Your task to perform on an android device: Open the Play Movies app and select the watchlist tab. Image 0: 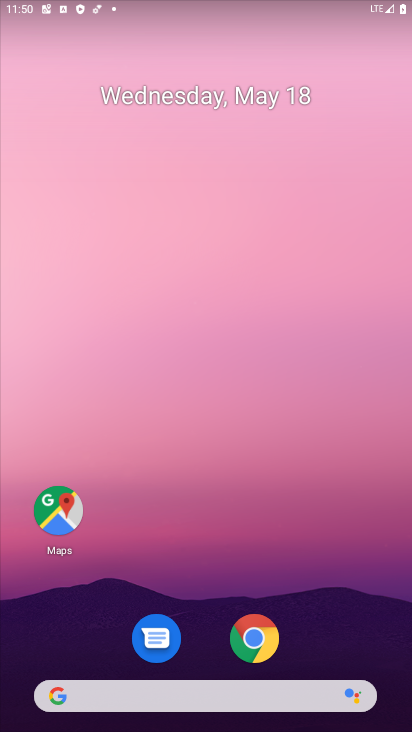
Step 0: drag from (364, 645) to (269, 64)
Your task to perform on an android device: Open the Play Movies app and select the watchlist tab. Image 1: 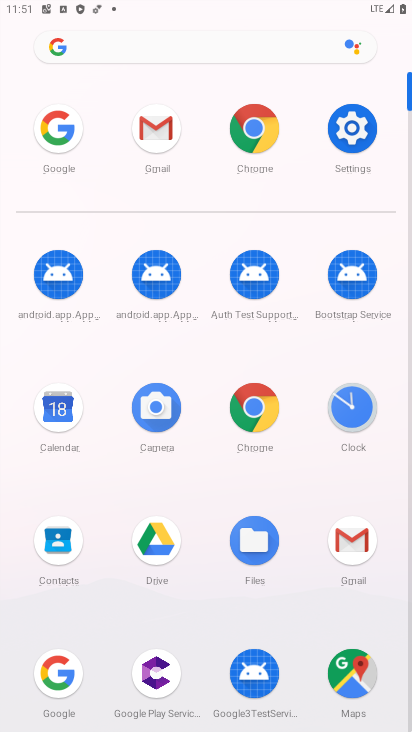
Step 1: drag from (338, 593) to (301, 192)
Your task to perform on an android device: Open the Play Movies app and select the watchlist tab. Image 2: 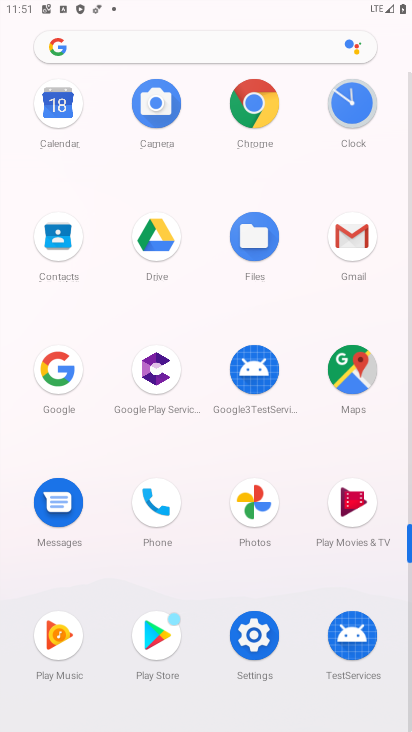
Step 2: click (371, 515)
Your task to perform on an android device: Open the Play Movies app and select the watchlist tab. Image 3: 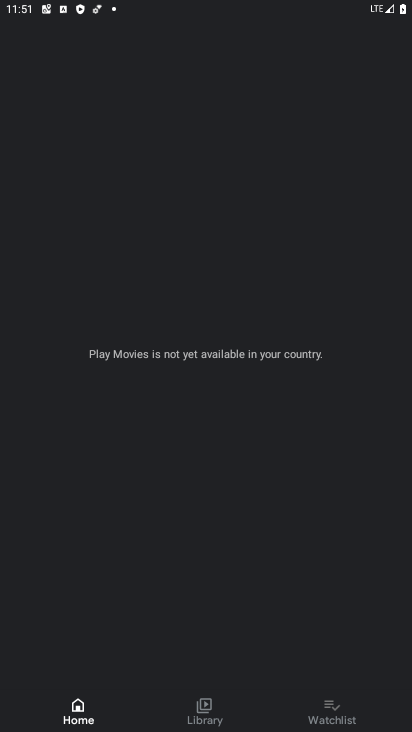
Step 3: click (332, 700)
Your task to perform on an android device: Open the Play Movies app and select the watchlist tab. Image 4: 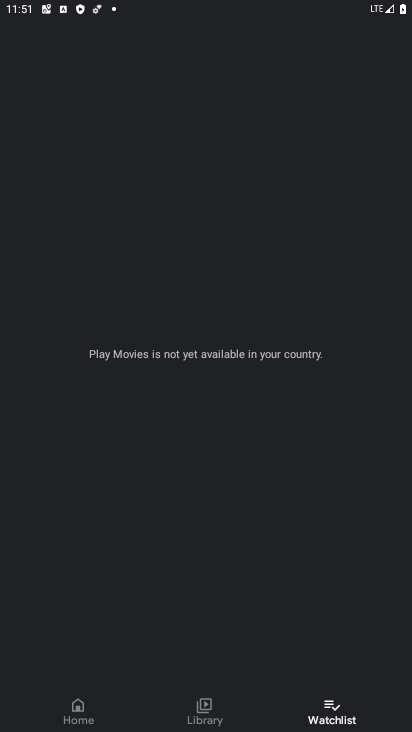
Step 4: task complete